Your task to perform on an android device: Turn on the flashlight Image 0: 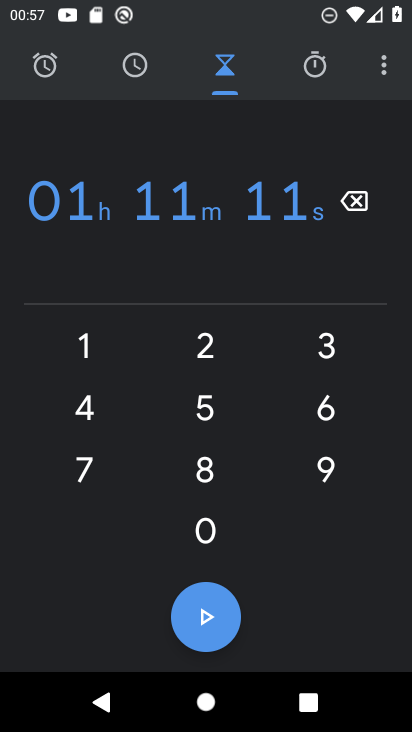
Step 0: press home button
Your task to perform on an android device: Turn on the flashlight Image 1: 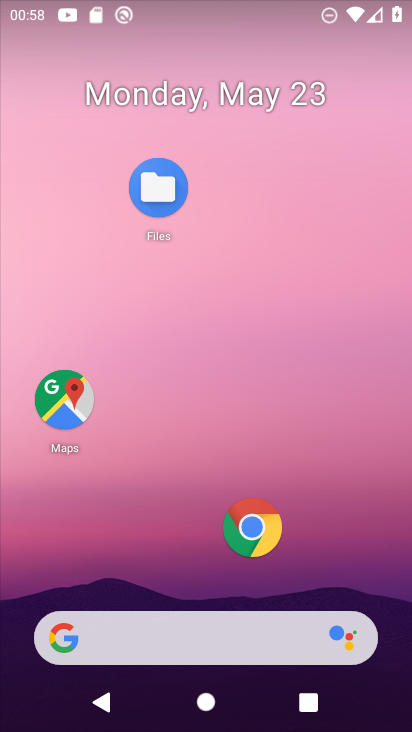
Step 1: drag from (169, 554) to (244, 57)
Your task to perform on an android device: Turn on the flashlight Image 2: 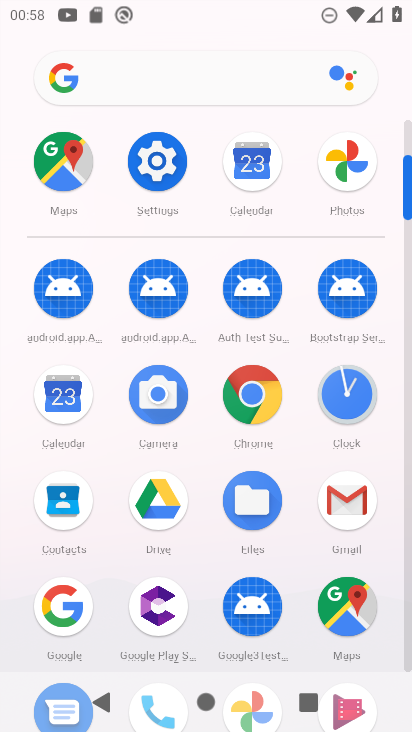
Step 2: click (150, 164)
Your task to perform on an android device: Turn on the flashlight Image 3: 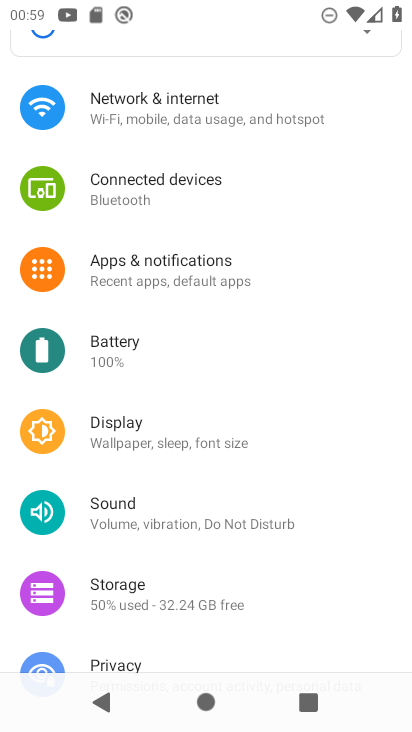
Step 3: click (116, 181)
Your task to perform on an android device: Turn on the flashlight Image 4: 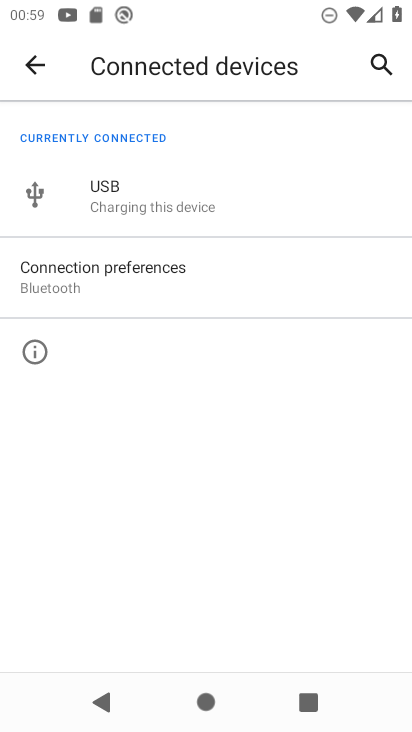
Step 4: click (34, 71)
Your task to perform on an android device: Turn on the flashlight Image 5: 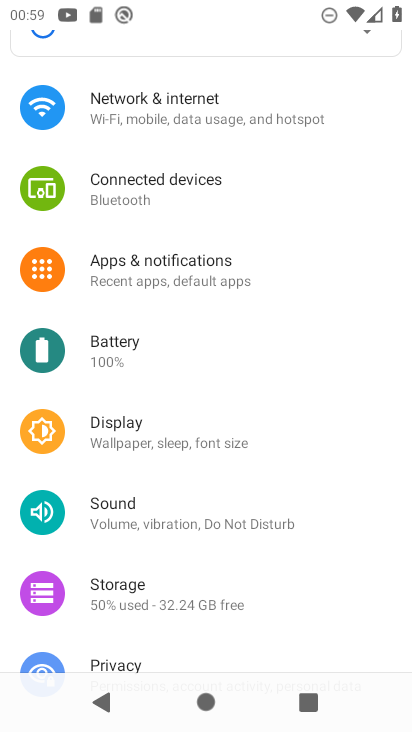
Step 5: task complete